Your task to perform on an android device: Open ESPN.com Image 0: 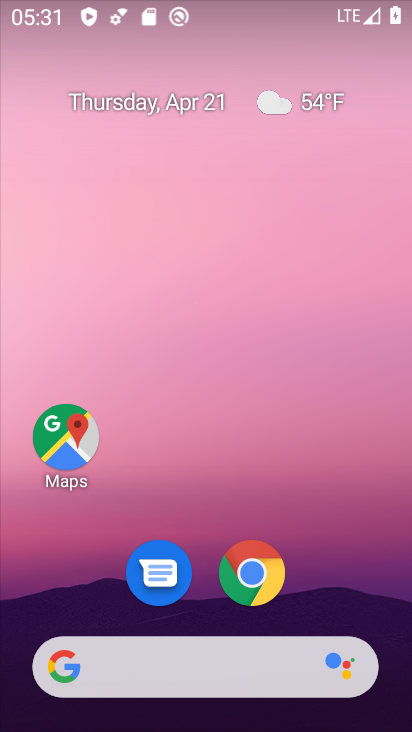
Step 0: click (250, 568)
Your task to perform on an android device: Open ESPN.com Image 1: 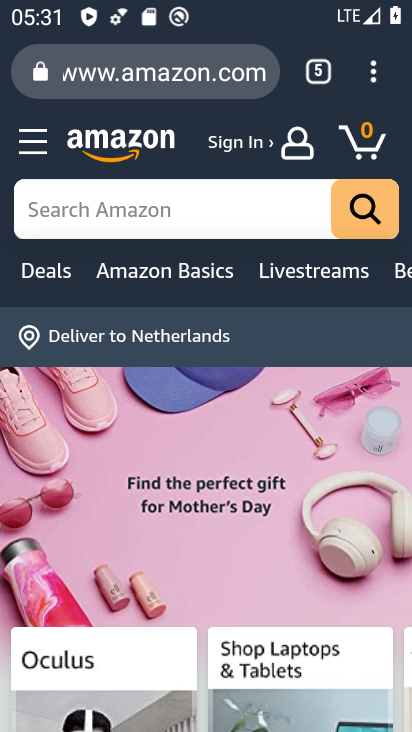
Step 1: click (120, 70)
Your task to perform on an android device: Open ESPN.com Image 2: 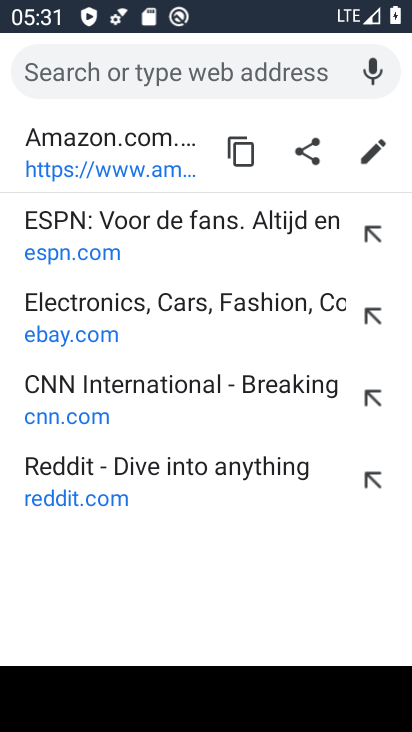
Step 2: type "espn.com"
Your task to perform on an android device: Open ESPN.com Image 3: 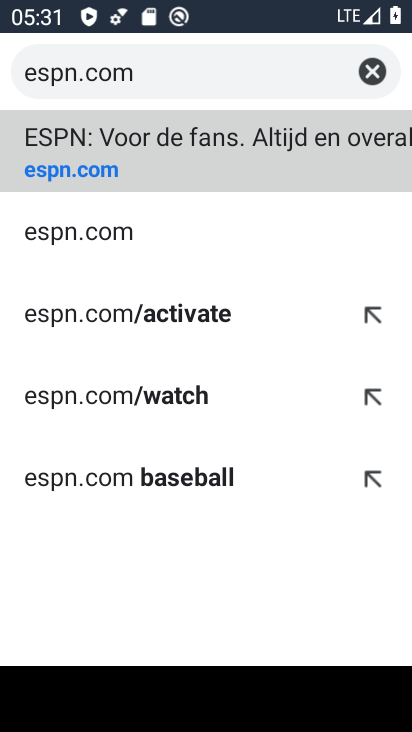
Step 3: click (82, 125)
Your task to perform on an android device: Open ESPN.com Image 4: 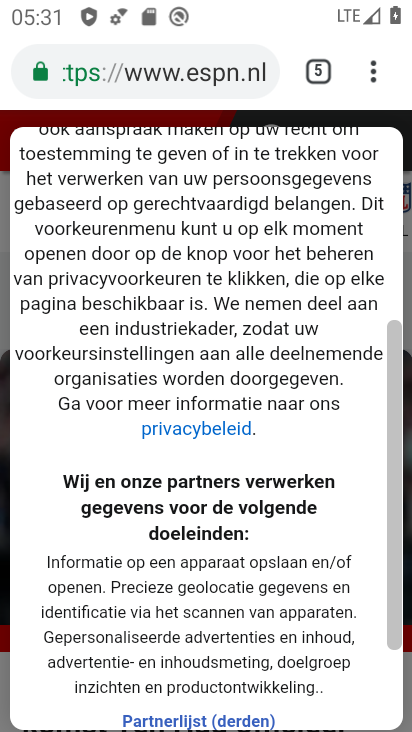
Step 4: task complete